Your task to perform on an android device: stop showing notifications on the lock screen Image 0: 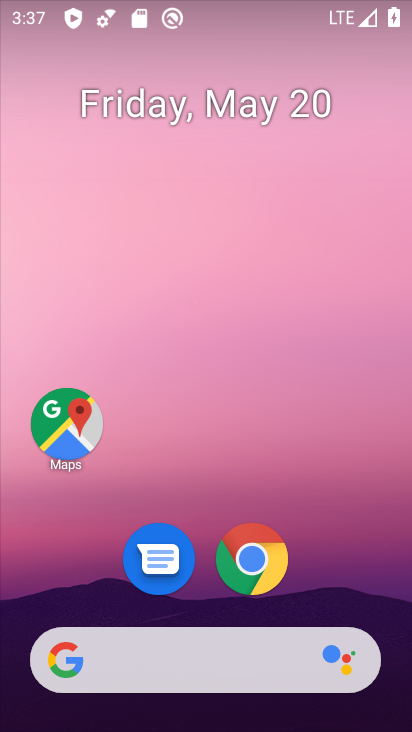
Step 0: drag from (233, 426) to (276, 38)
Your task to perform on an android device: stop showing notifications on the lock screen Image 1: 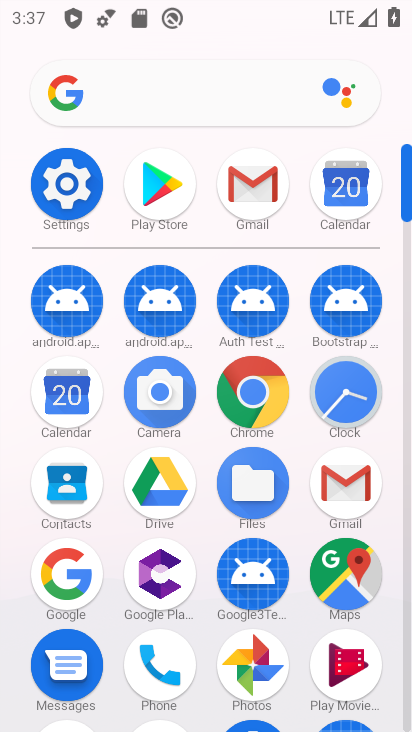
Step 1: click (75, 191)
Your task to perform on an android device: stop showing notifications on the lock screen Image 2: 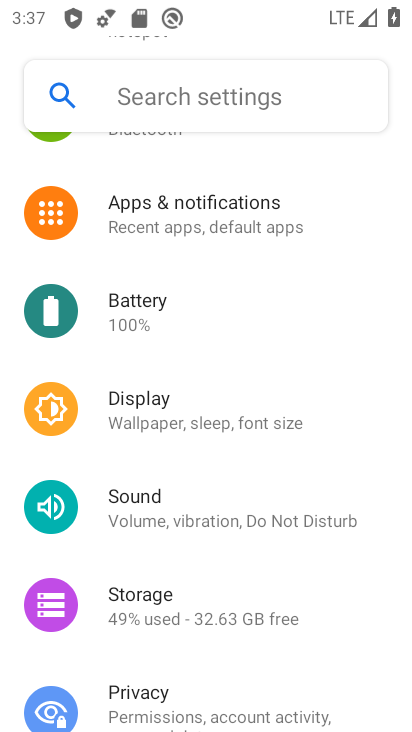
Step 2: click (221, 225)
Your task to perform on an android device: stop showing notifications on the lock screen Image 3: 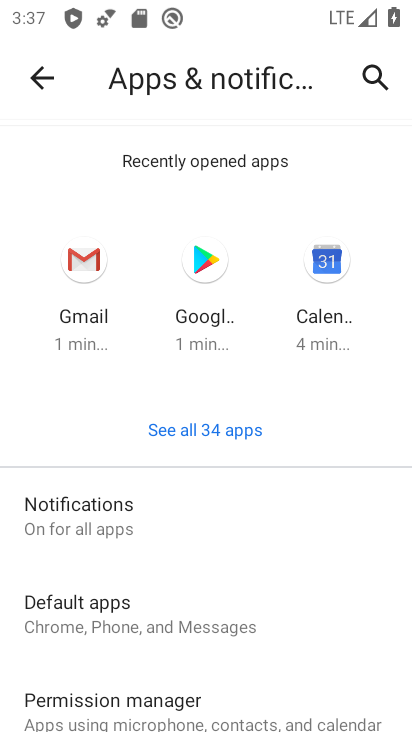
Step 3: click (163, 515)
Your task to perform on an android device: stop showing notifications on the lock screen Image 4: 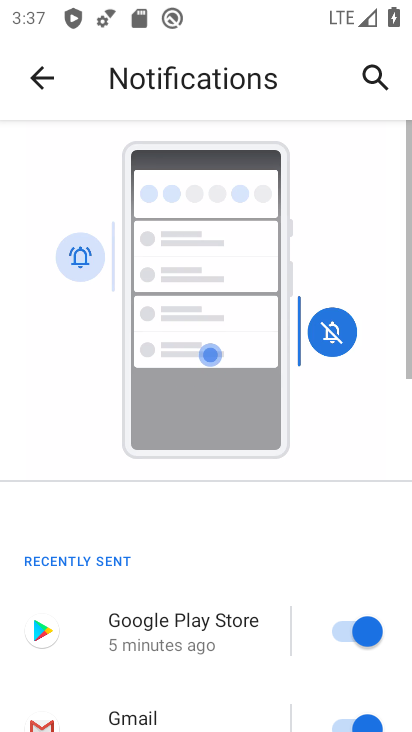
Step 4: drag from (228, 591) to (295, 157)
Your task to perform on an android device: stop showing notifications on the lock screen Image 5: 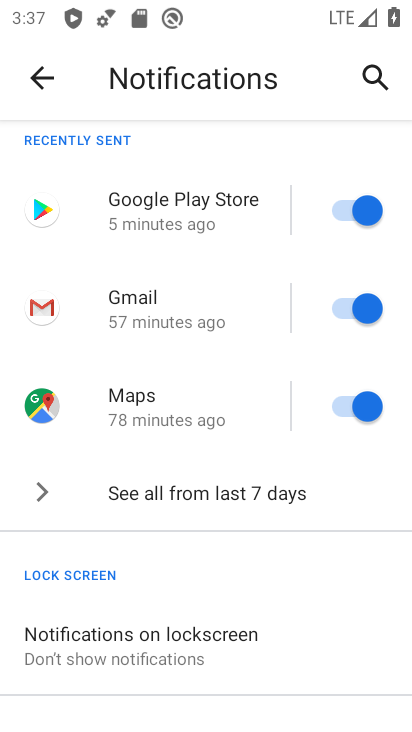
Step 5: drag from (236, 524) to (248, 327)
Your task to perform on an android device: stop showing notifications on the lock screen Image 6: 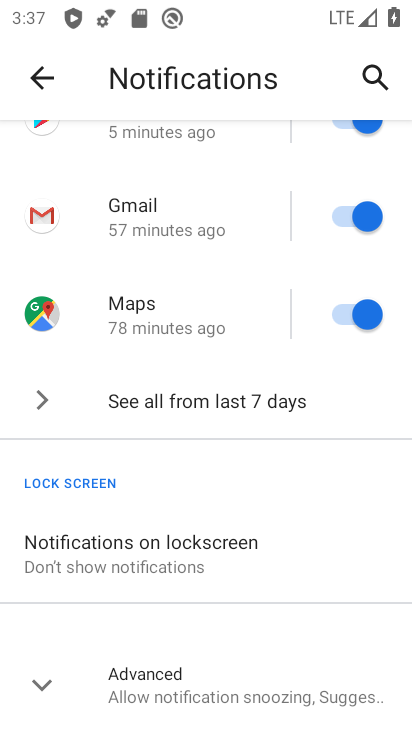
Step 6: click (210, 541)
Your task to perform on an android device: stop showing notifications on the lock screen Image 7: 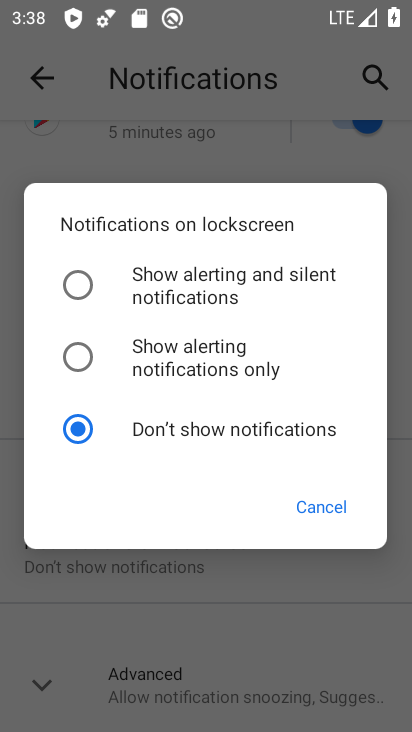
Step 7: click (311, 507)
Your task to perform on an android device: stop showing notifications on the lock screen Image 8: 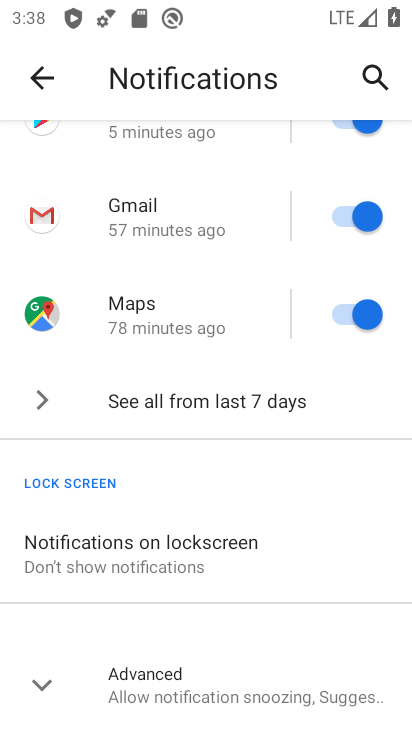
Step 8: task complete